Your task to perform on an android device: Go to location settings Image 0: 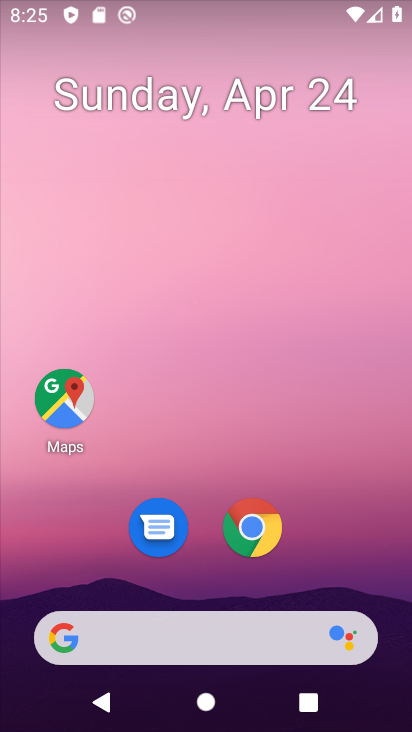
Step 0: drag from (308, 538) to (267, 146)
Your task to perform on an android device: Go to location settings Image 1: 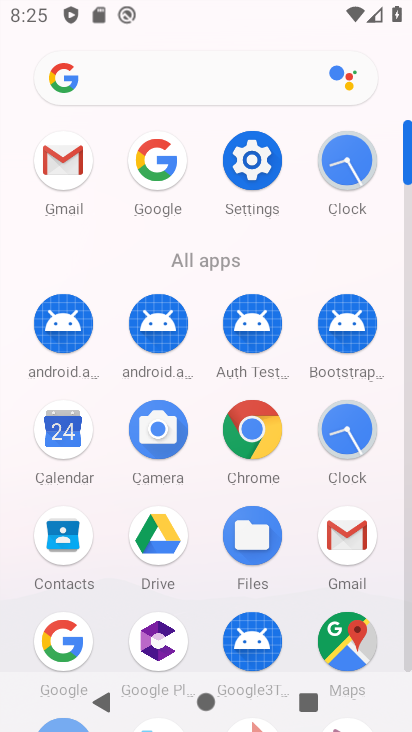
Step 1: click (246, 163)
Your task to perform on an android device: Go to location settings Image 2: 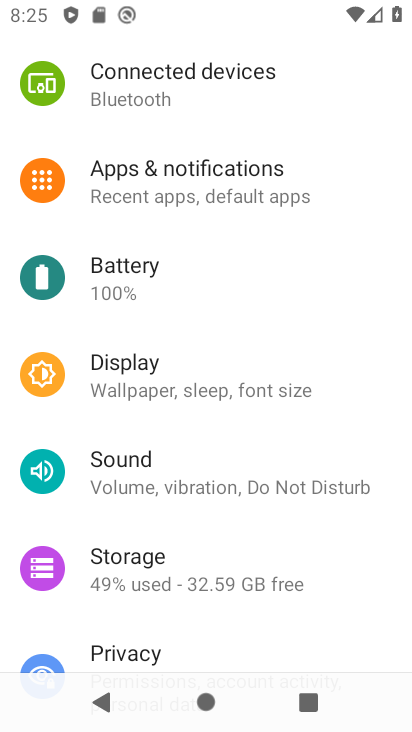
Step 2: drag from (243, 530) to (222, 130)
Your task to perform on an android device: Go to location settings Image 3: 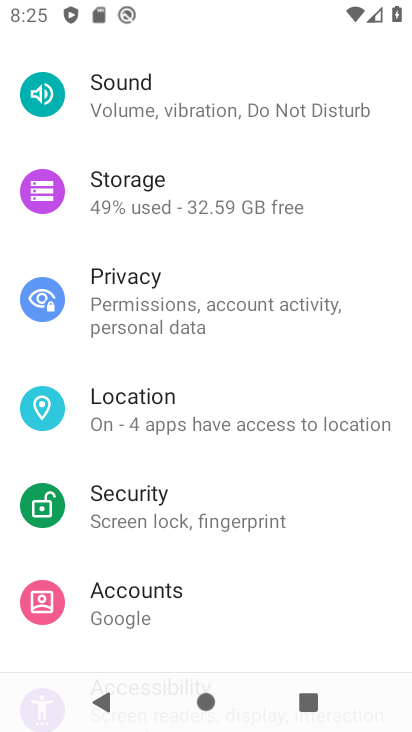
Step 3: click (208, 410)
Your task to perform on an android device: Go to location settings Image 4: 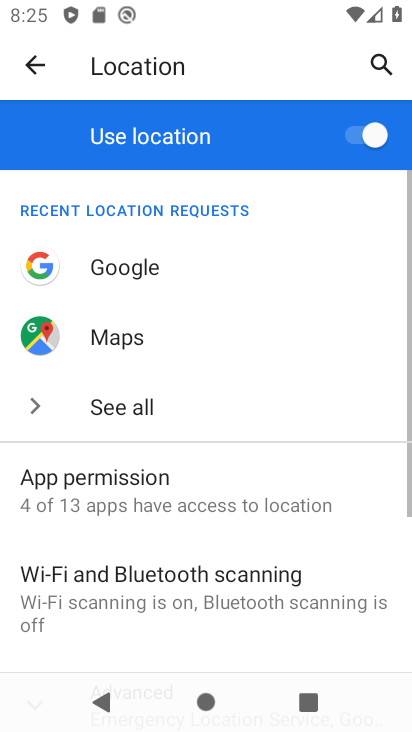
Step 4: task complete